Your task to perform on an android device: What's the weather going to be this weekend? Image 0: 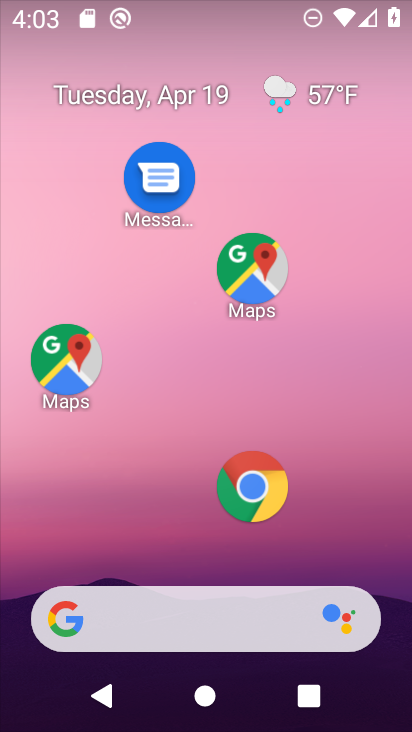
Step 0: drag from (287, 552) to (309, 124)
Your task to perform on an android device: What's the weather going to be this weekend? Image 1: 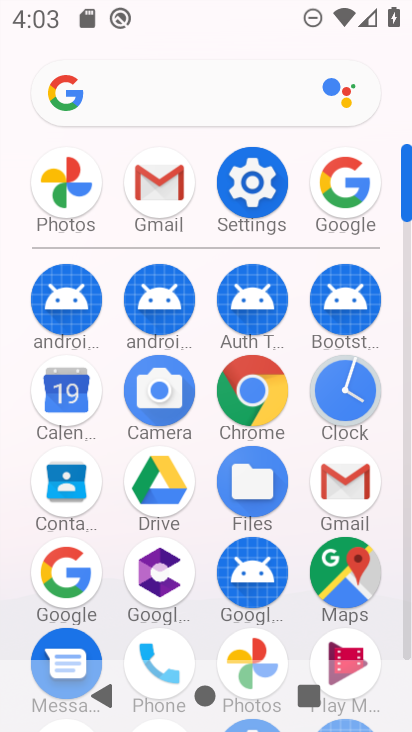
Step 1: press back button
Your task to perform on an android device: What's the weather going to be this weekend? Image 2: 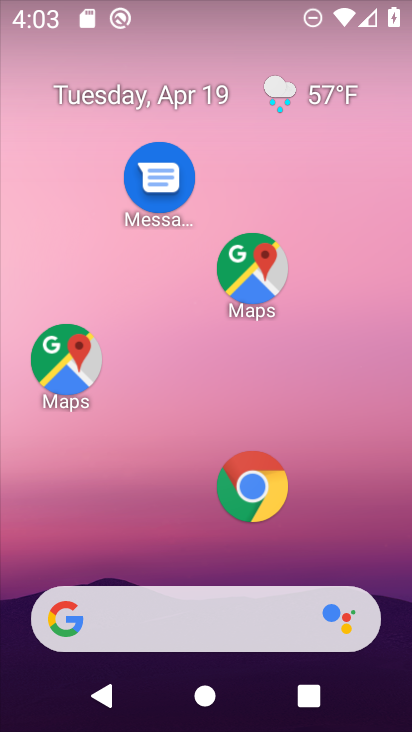
Step 2: click (225, 107)
Your task to perform on an android device: What's the weather going to be this weekend? Image 3: 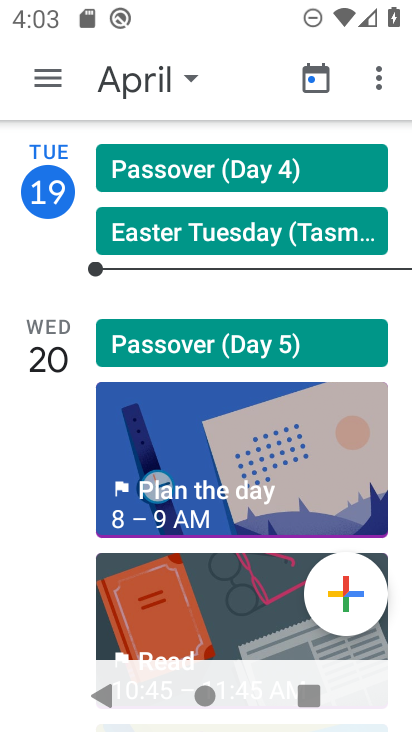
Step 3: press home button
Your task to perform on an android device: What's the weather going to be this weekend? Image 4: 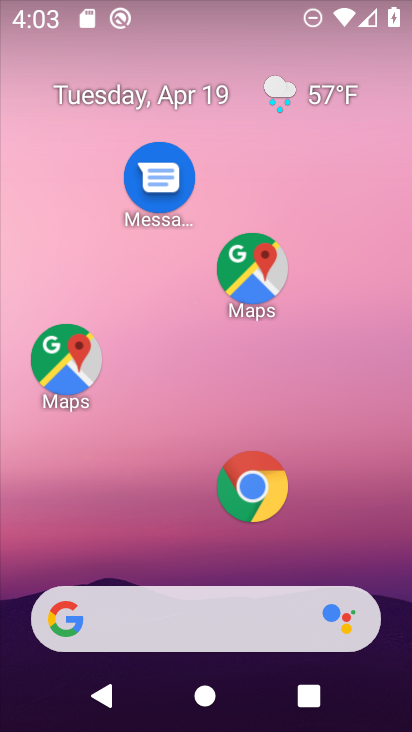
Step 4: click (300, 109)
Your task to perform on an android device: What's the weather going to be this weekend? Image 5: 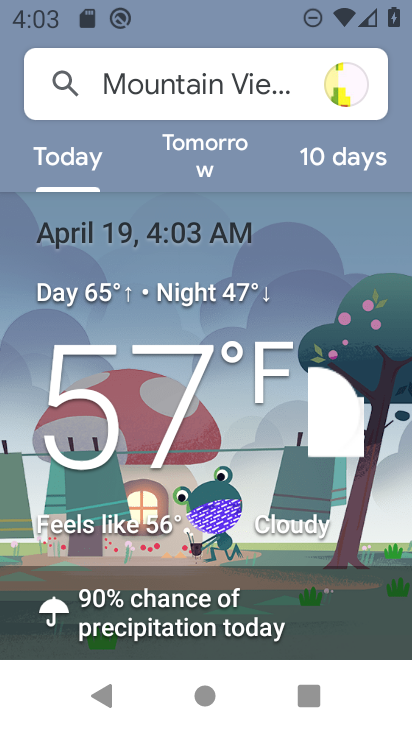
Step 5: click (315, 166)
Your task to perform on an android device: What's the weather going to be this weekend? Image 6: 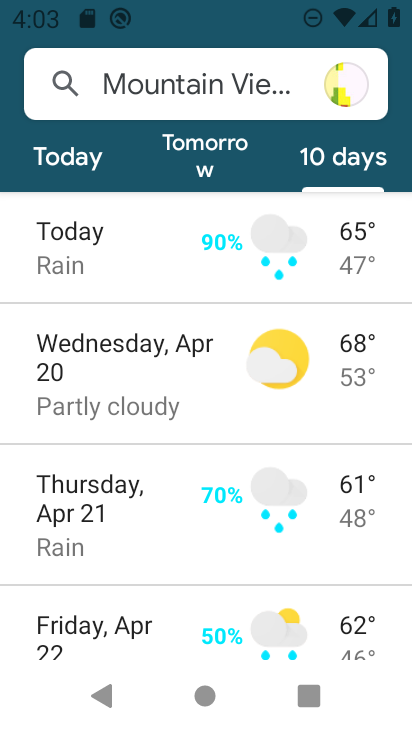
Step 6: task complete